Your task to perform on an android device: add a contact in the contacts app Image 0: 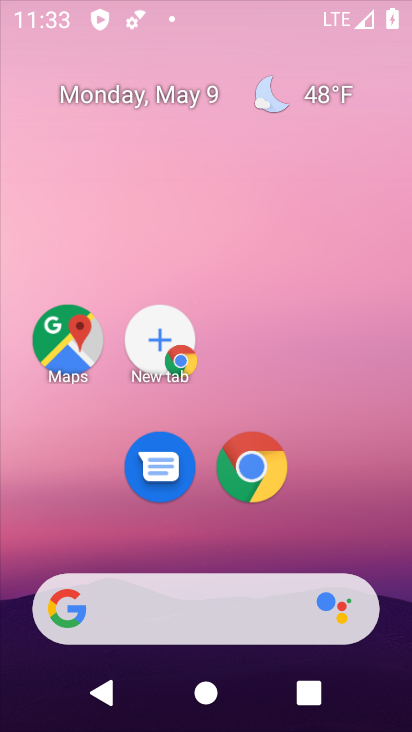
Step 0: drag from (382, 592) to (203, 11)
Your task to perform on an android device: add a contact in the contacts app Image 1: 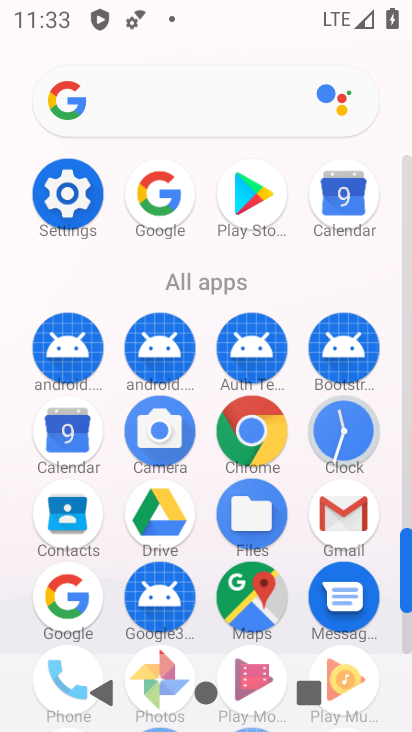
Step 1: drag from (110, 549) to (95, 74)
Your task to perform on an android device: add a contact in the contacts app Image 2: 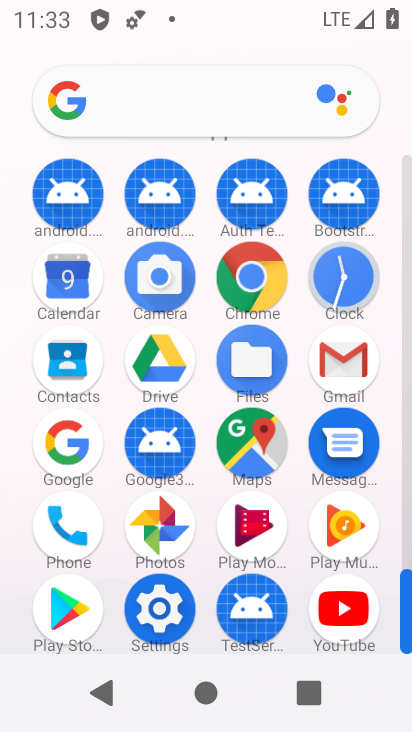
Step 2: click (69, 363)
Your task to perform on an android device: add a contact in the contacts app Image 3: 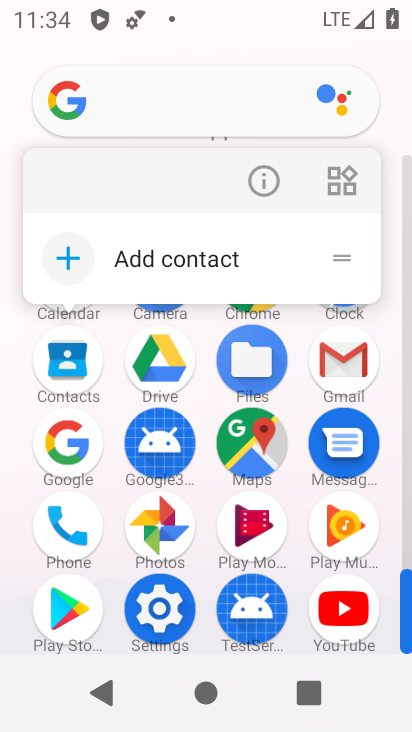
Step 3: click (69, 363)
Your task to perform on an android device: add a contact in the contacts app Image 4: 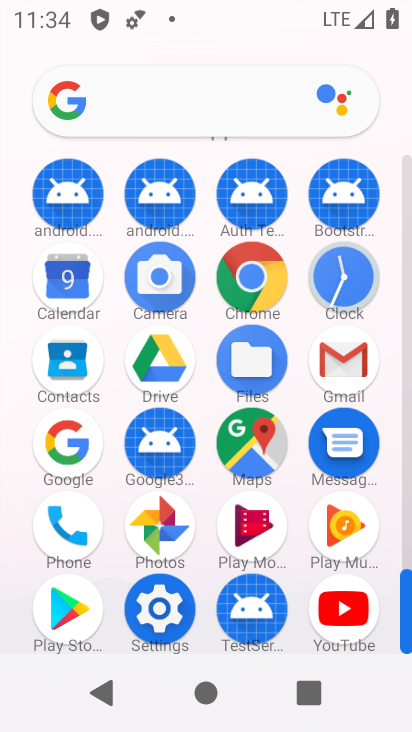
Step 4: click (69, 363)
Your task to perform on an android device: add a contact in the contacts app Image 5: 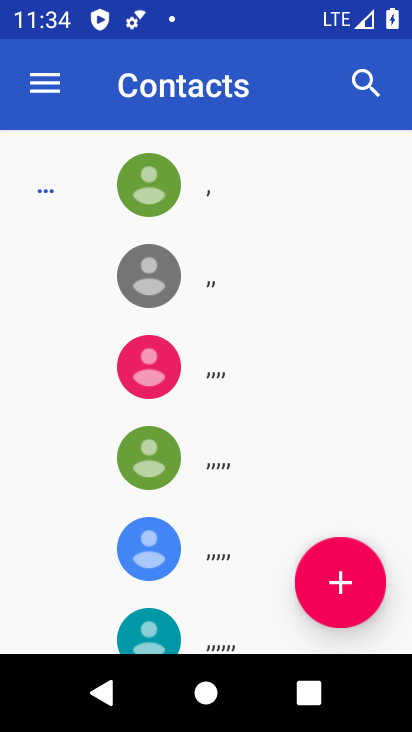
Step 5: drag from (377, 551) to (347, 584)
Your task to perform on an android device: add a contact in the contacts app Image 6: 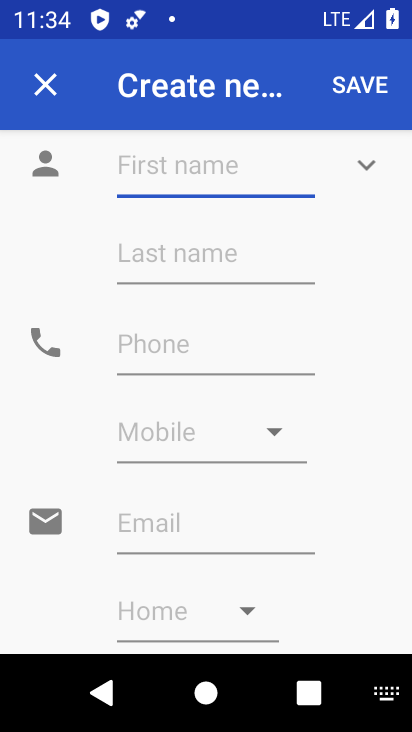
Step 6: click (131, 150)
Your task to perform on an android device: add a contact in the contacts app Image 7: 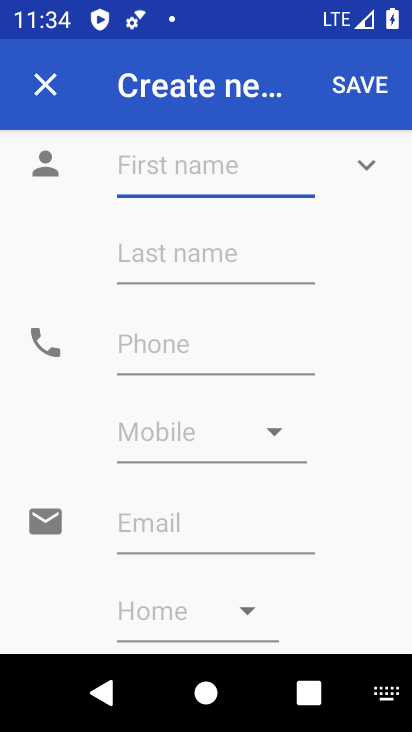
Step 7: type "premji"
Your task to perform on an android device: add a contact in the contacts app Image 8: 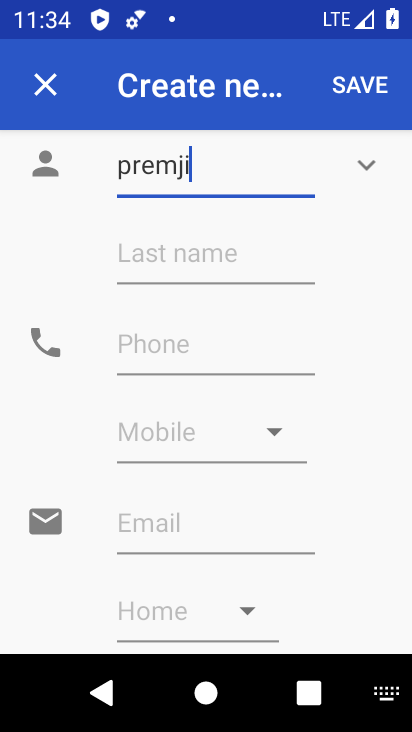
Step 8: click (134, 354)
Your task to perform on an android device: add a contact in the contacts app Image 9: 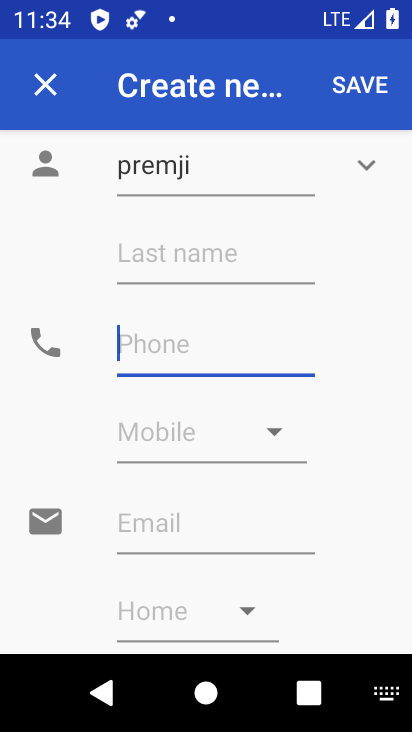
Step 9: type "97845656677"
Your task to perform on an android device: add a contact in the contacts app Image 10: 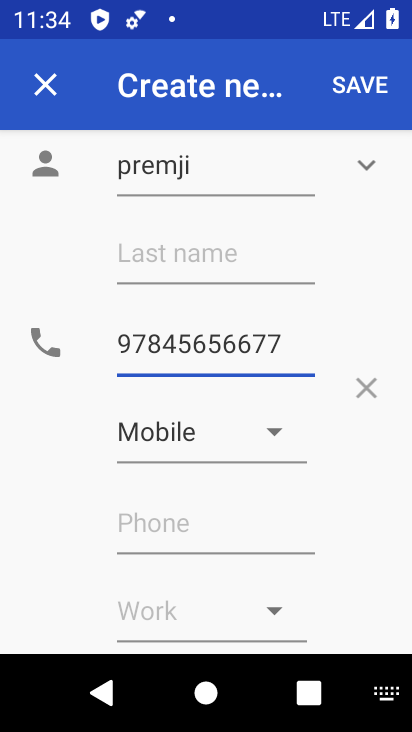
Step 10: click (350, 87)
Your task to perform on an android device: add a contact in the contacts app Image 11: 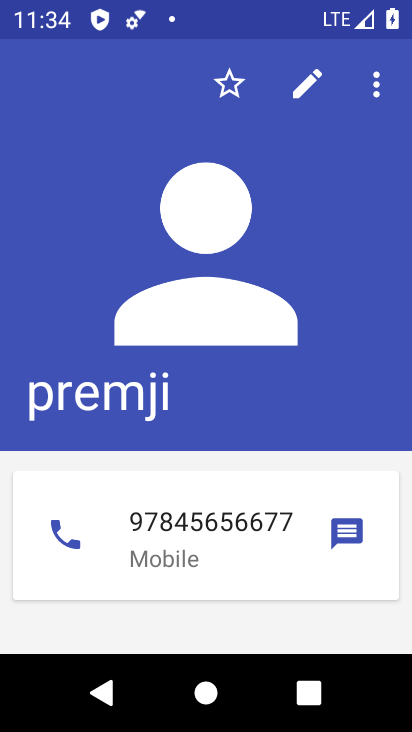
Step 11: task complete